Your task to perform on an android device: Open Google Chrome Image 0: 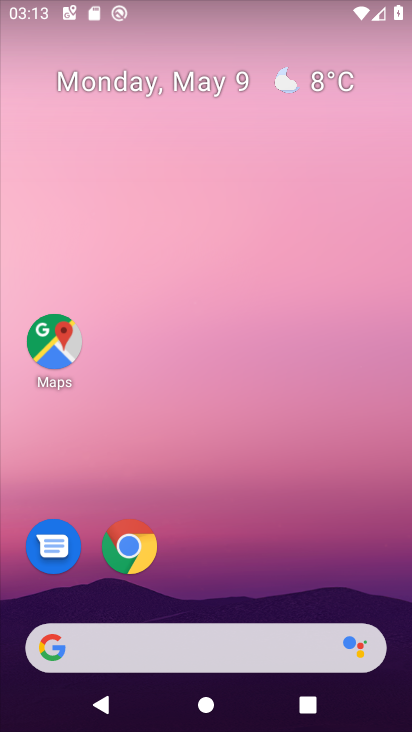
Step 0: click (141, 545)
Your task to perform on an android device: Open Google Chrome Image 1: 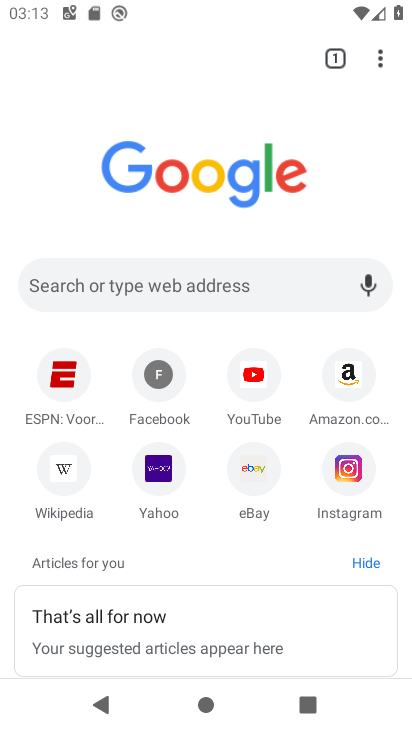
Step 1: task complete